Your task to perform on an android device: search for starred emails in the gmail app Image 0: 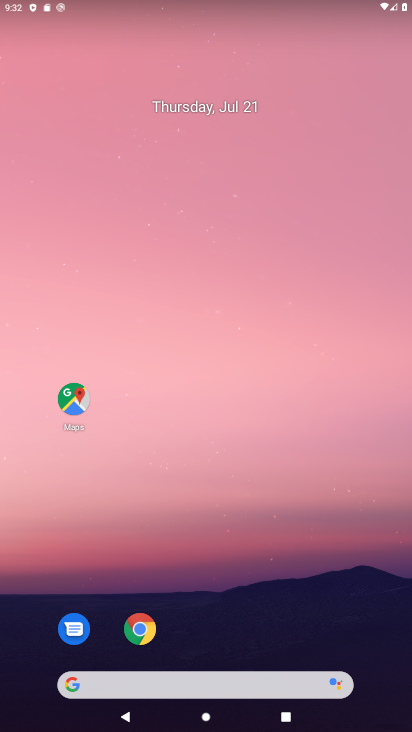
Step 0: drag from (199, 656) to (191, 312)
Your task to perform on an android device: search for starred emails in the gmail app Image 1: 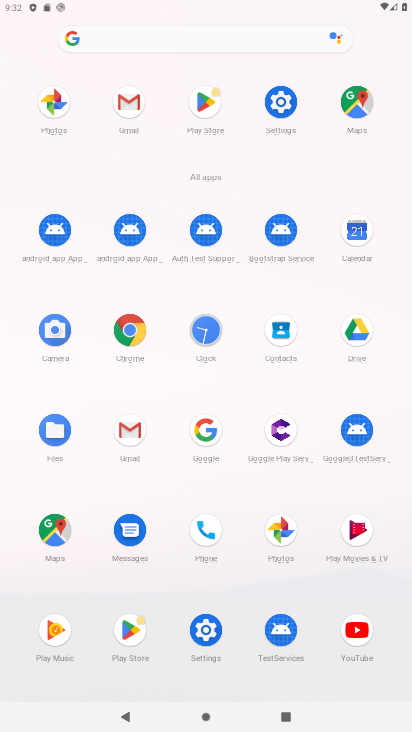
Step 1: click (135, 107)
Your task to perform on an android device: search for starred emails in the gmail app Image 2: 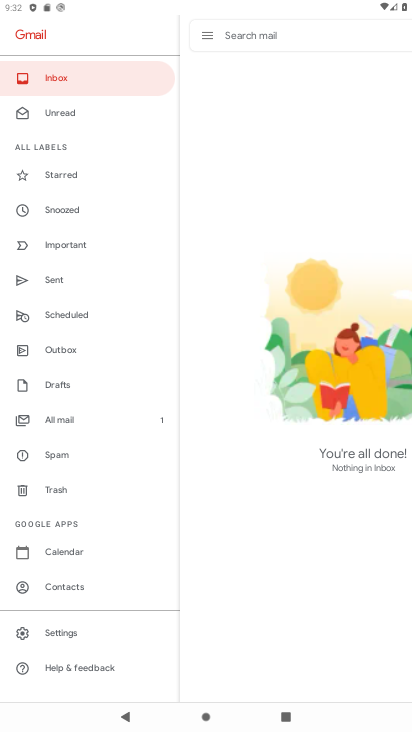
Step 2: click (58, 171)
Your task to perform on an android device: search for starred emails in the gmail app Image 3: 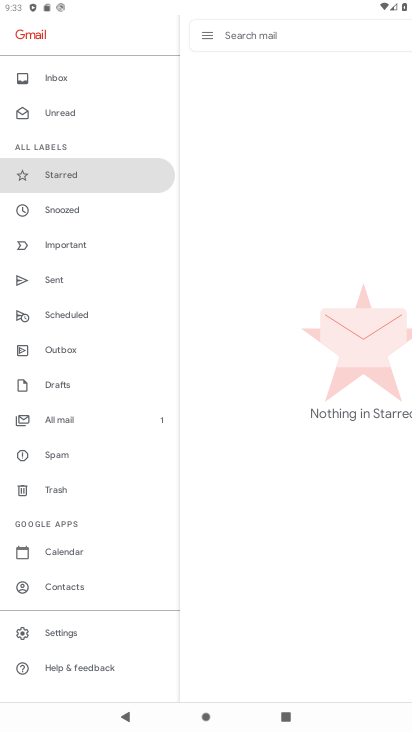
Step 3: task complete